Your task to perform on an android device: toggle wifi Image 0: 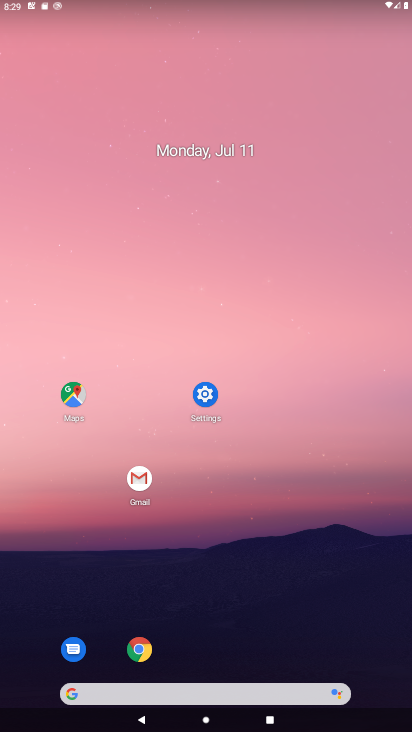
Step 0: click (207, 402)
Your task to perform on an android device: toggle wifi Image 1: 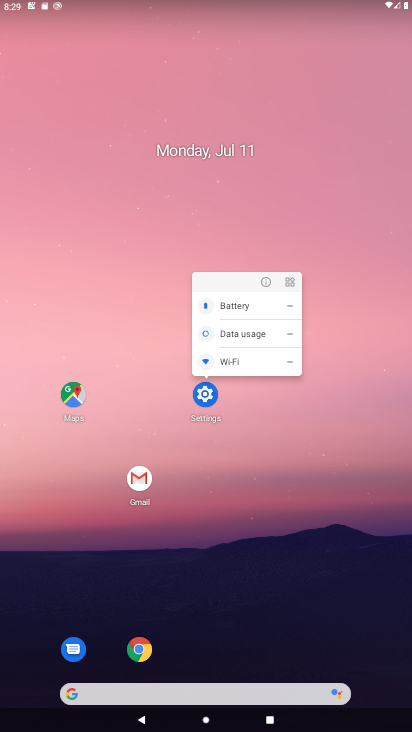
Step 1: click (208, 399)
Your task to perform on an android device: toggle wifi Image 2: 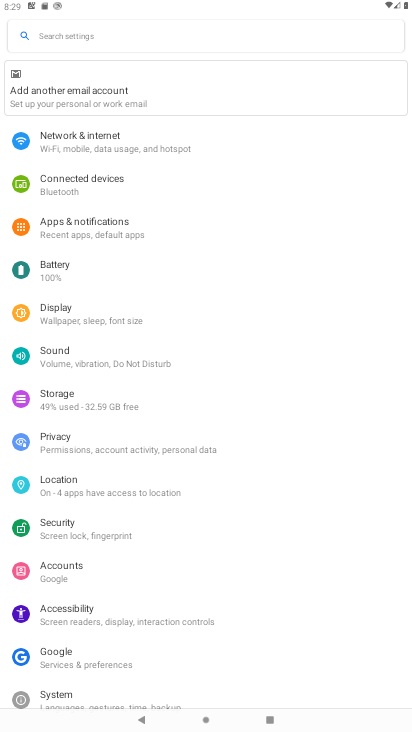
Step 2: click (96, 141)
Your task to perform on an android device: toggle wifi Image 3: 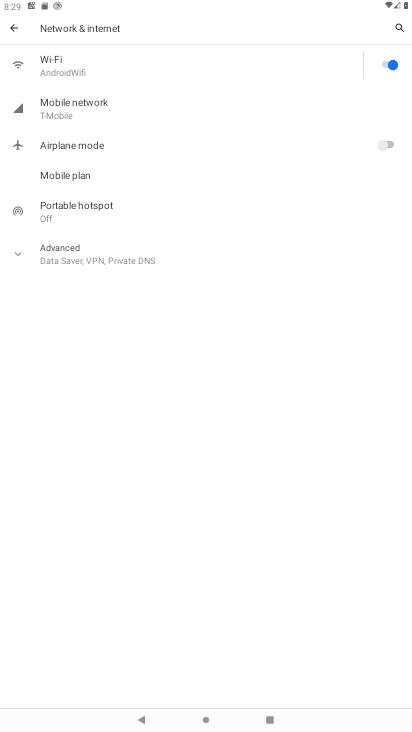
Step 3: click (388, 67)
Your task to perform on an android device: toggle wifi Image 4: 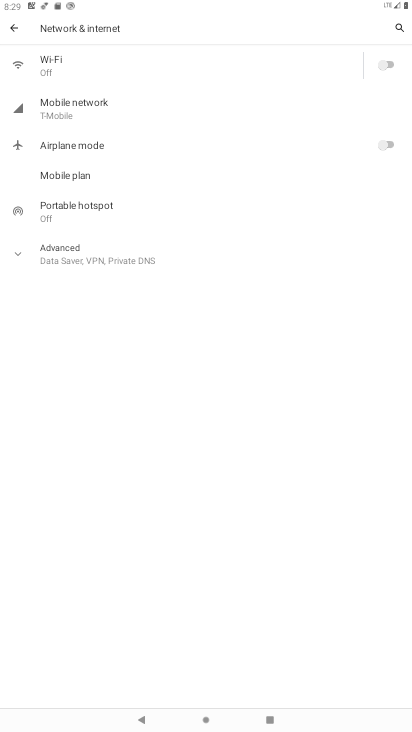
Step 4: task complete